Your task to perform on an android device: turn off priority inbox in the gmail app Image 0: 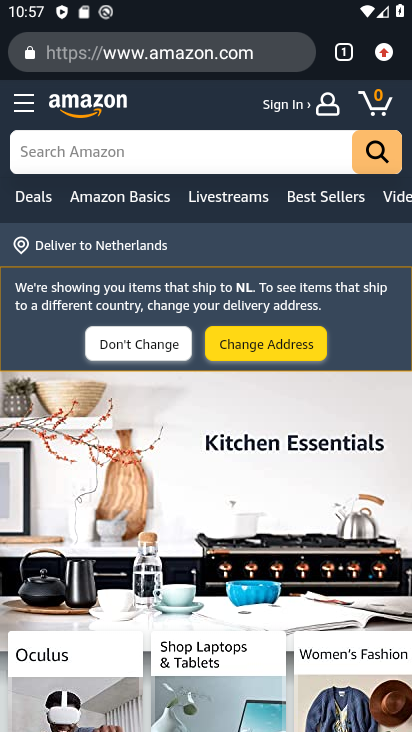
Step 0: press back button
Your task to perform on an android device: turn off priority inbox in the gmail app Image 1: 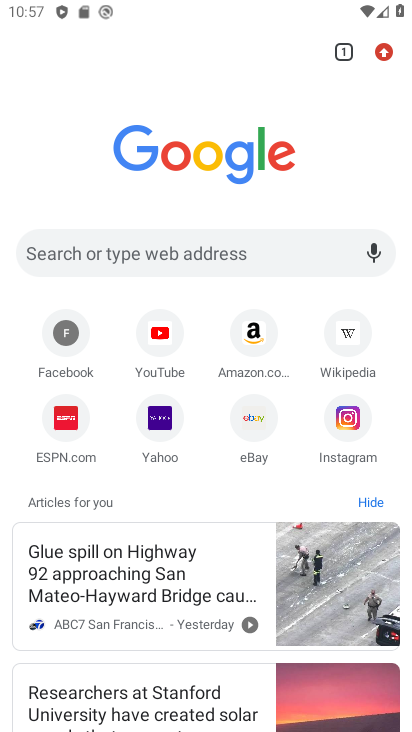
Step 1: press back button
Your task to perform on an android device: turn off priority inbox in the gmail app Image 2: 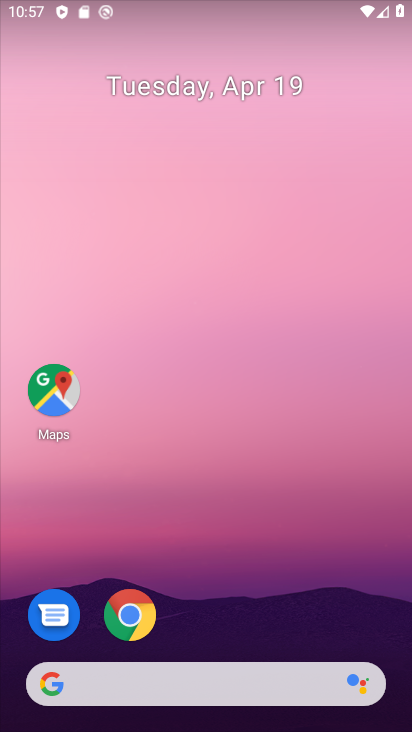
Step 2: drag from (179, 662) to (191, 248)
Your task to perform on an android device: turn off priority inbox in the gmail app Image 3: 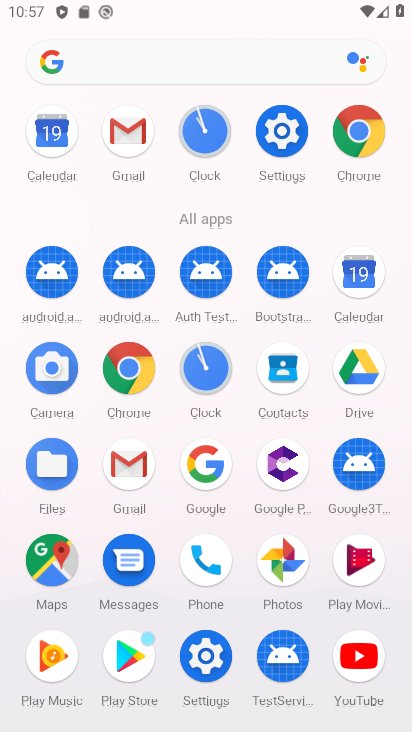
Step 3: click (132, 474)
Your task to perform on an android device: turn off priority inbox in the gmail app Image 4: 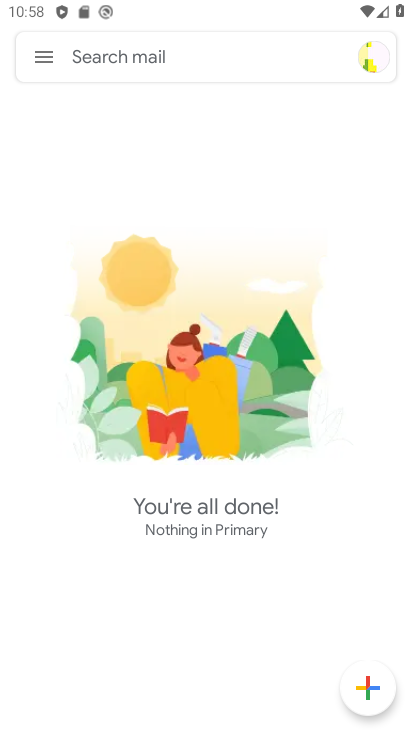
Step 4: click (39, 54)
Your task to perform on an android device: turn off priority inbox in the gmail app Image 5: 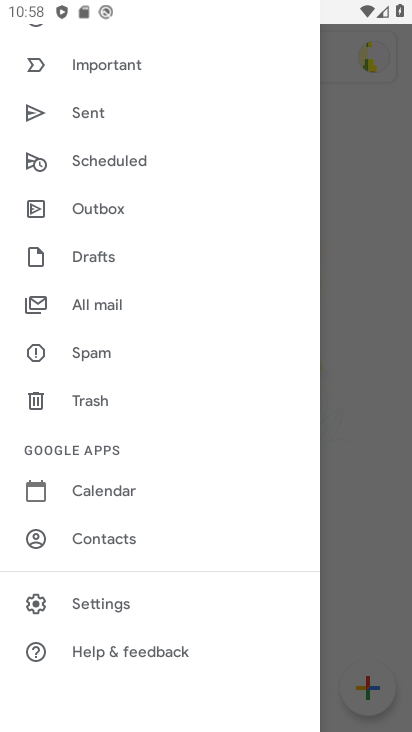
Step 5: click (83, 601)
Your task to perform on an android device: turn off priority inbox in the gmail app Image 6: 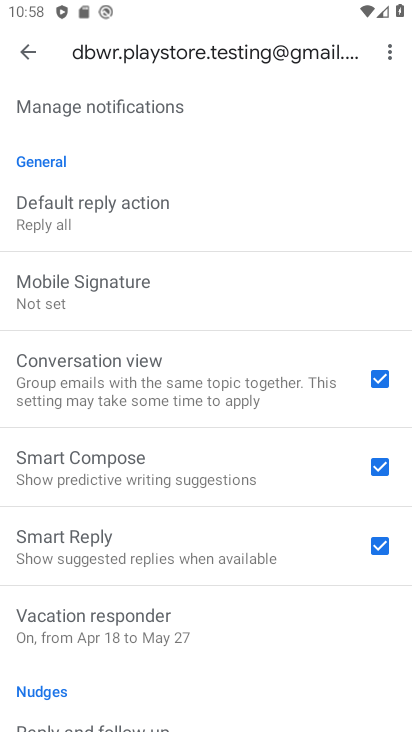
Step 6: drag from (173, 209) to (154, 592)
Your task to perform on an android device: turn off priority inbox in the gmail app Image 7: 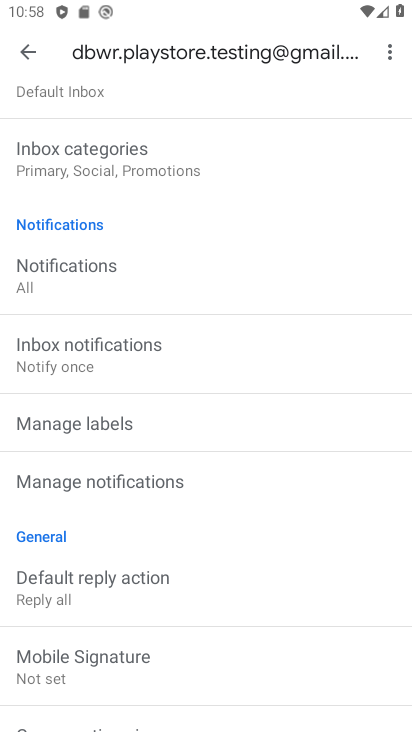
Step 7: drag from (147, 159) to (84, 603)
Your task to perform on an android device: turn off priority inbox in the gmail app Image 8: 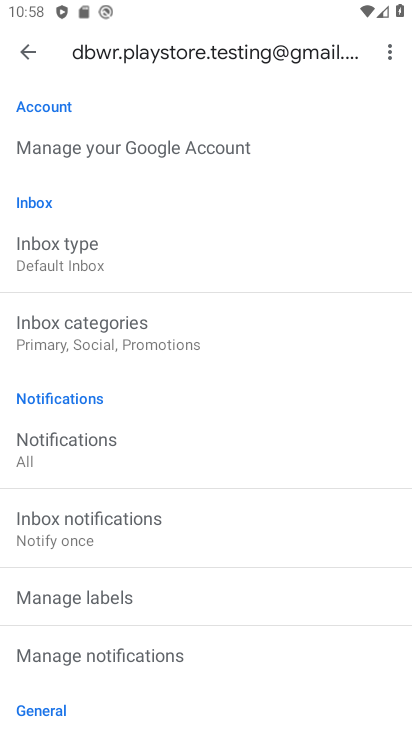
Step 8: click (54, 245)
Your task to perform on an android device: turn off priority inbox in the gmail app Image 9: 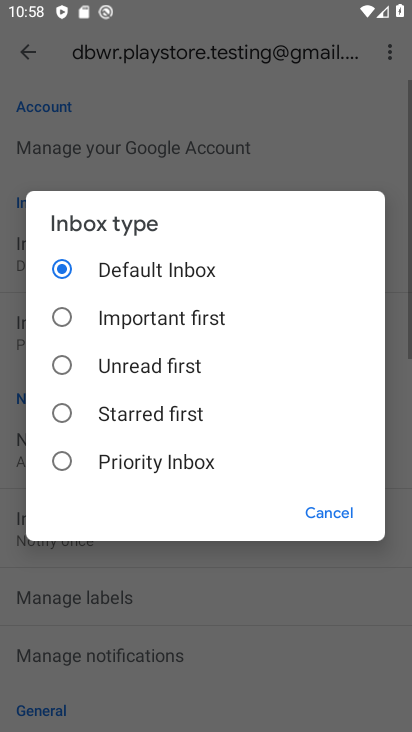
Step 9: click (102, 460)
Your task to perform on an android device: turn off priority inbox in the gmail app Image 10: 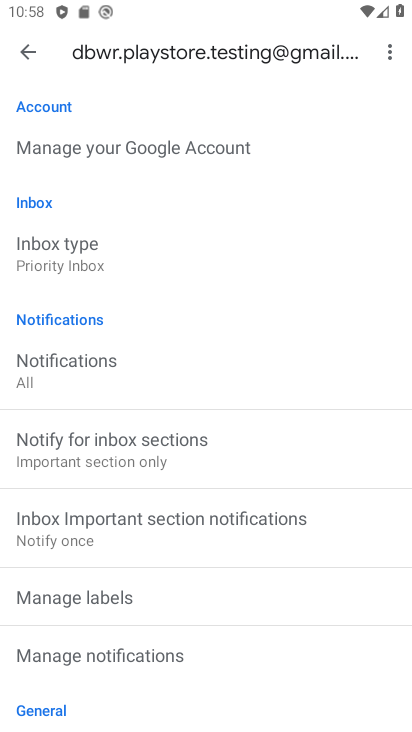
Step 10: task complete